Your task to perform on an android device: uninstall "Google Sheets" Image 0: 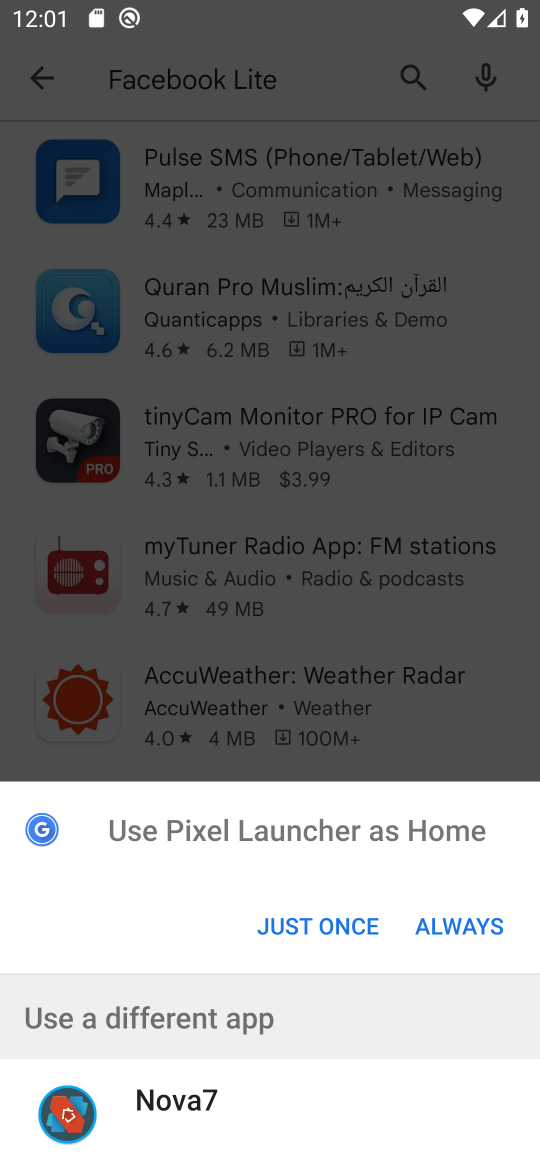
Step 0: press back button
Your task to perform on an android device: uninstall "Google Sheets" Image 1: 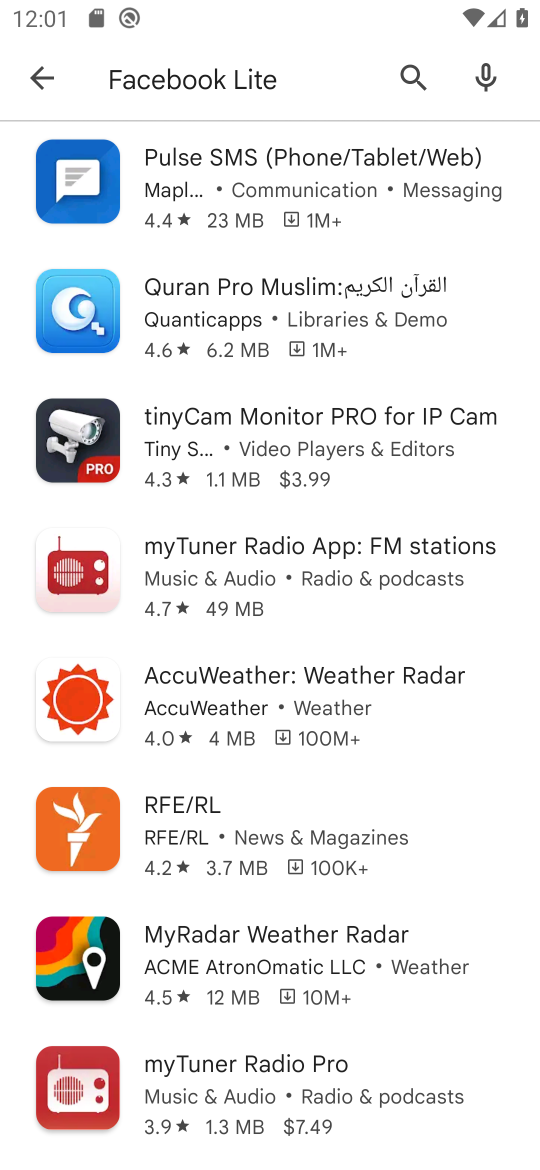
Step 1: click (30, 77)
Your task to perform on an android device: uninstall "Google Sheets" Image 2: 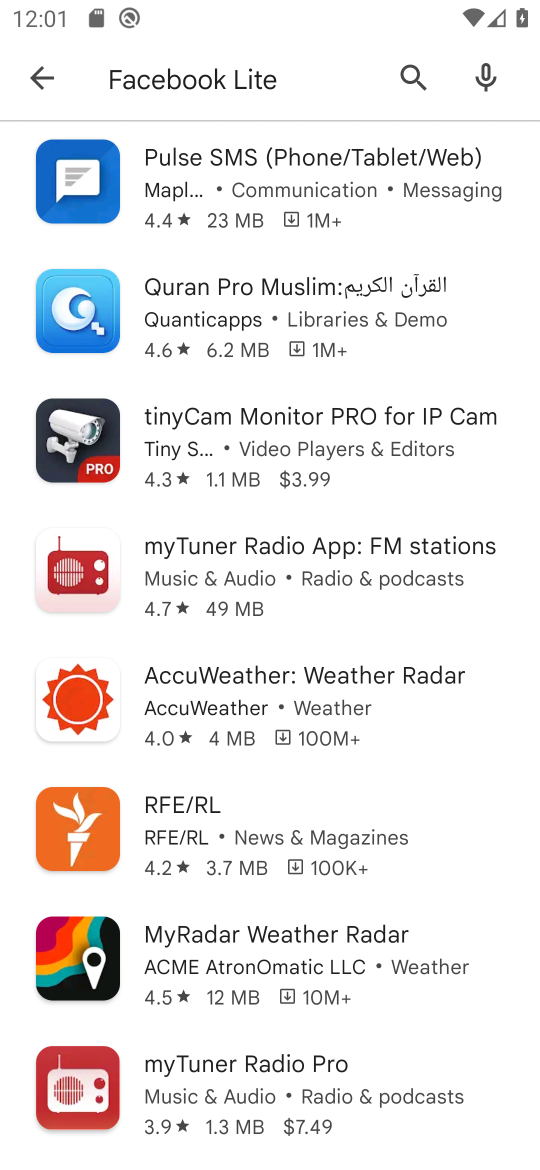
Step 2: press back button
Your task to perform on an android device: uninstall "Google Sheets" Image 3: 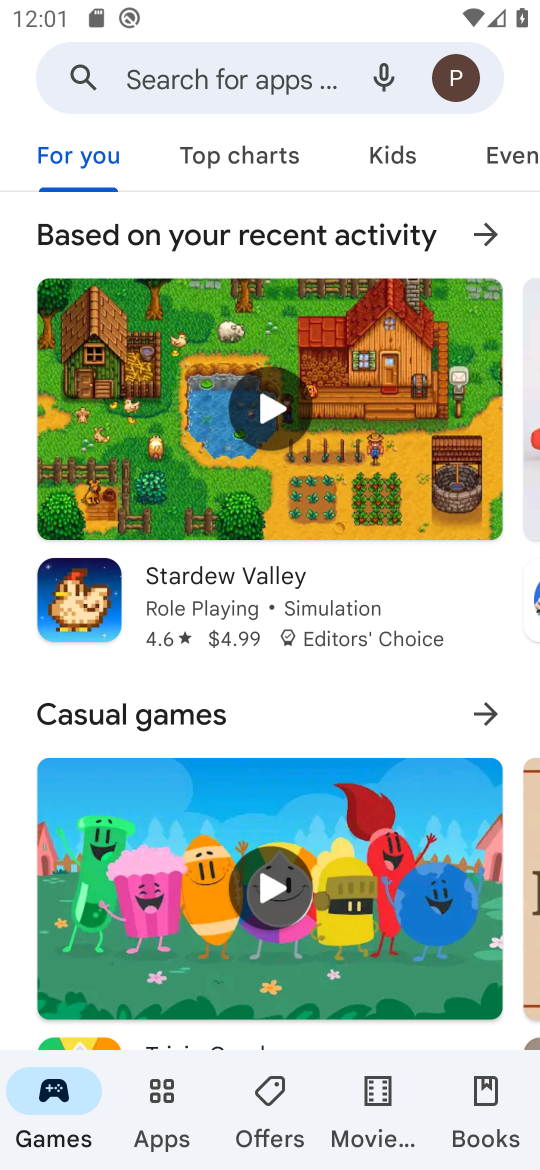
Step 3: click (250, 85)
Your task to perform on an android device: uninstall "Google Sheets" Image 4: 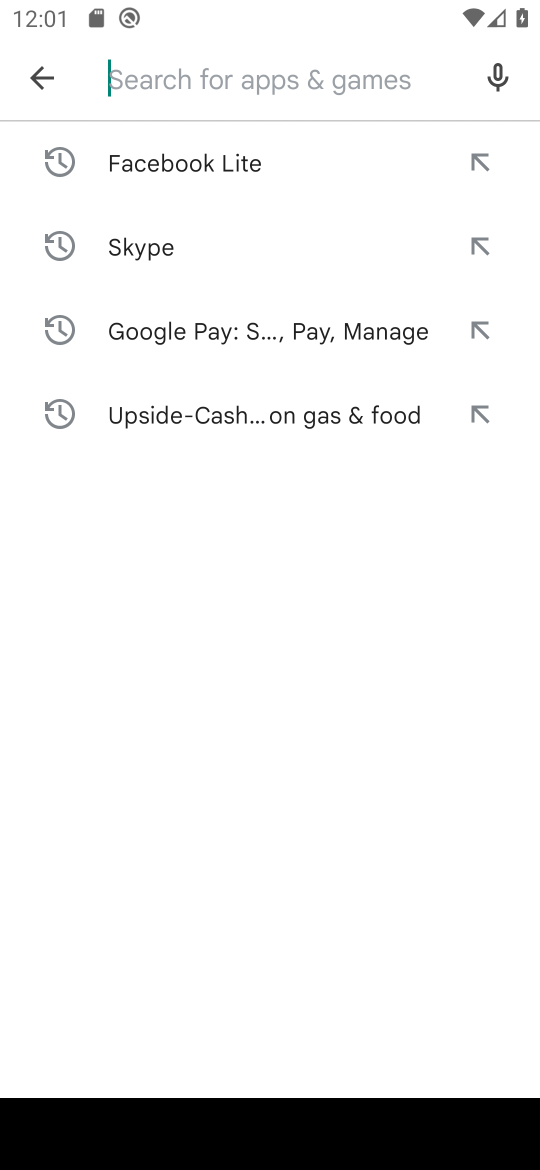
Step 4: type "Google Sheets"
Your task to perform on an android device: uninstall "Google Sheets" Image 5: 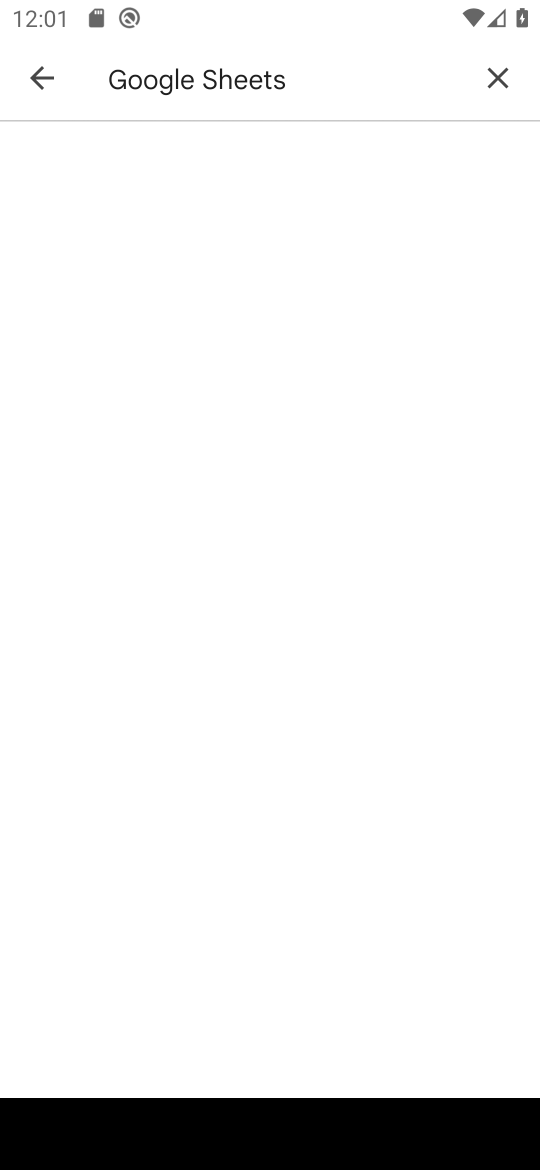
Step 5: press enter
Your task to perform on an android device: uninstall "Google Sheets" Image 6: 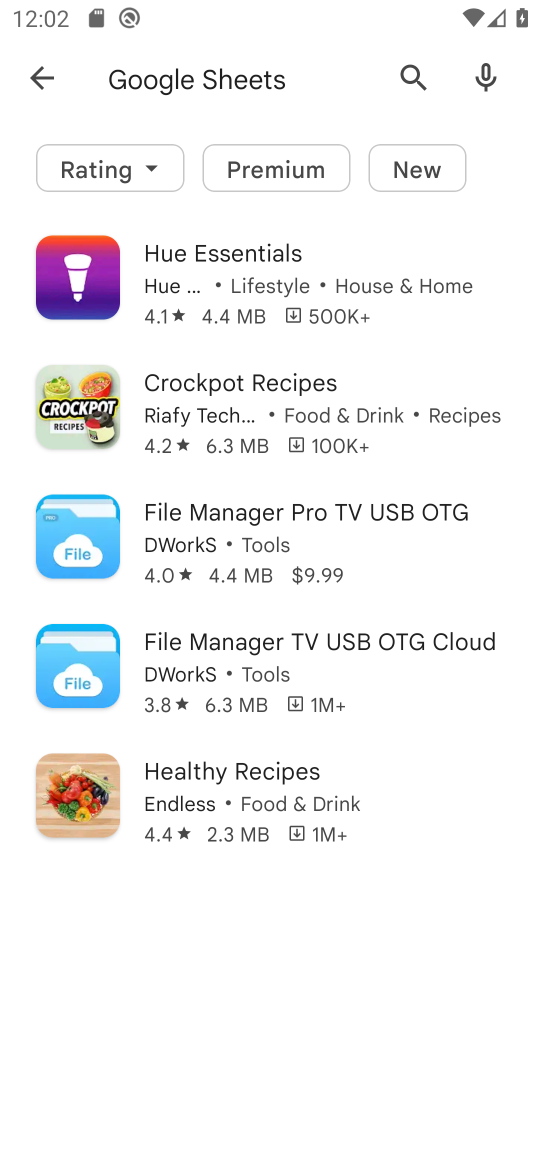
Step 6: task complete